Your task to perform on an android device: toggle show notifications on the lock screen Image 0: 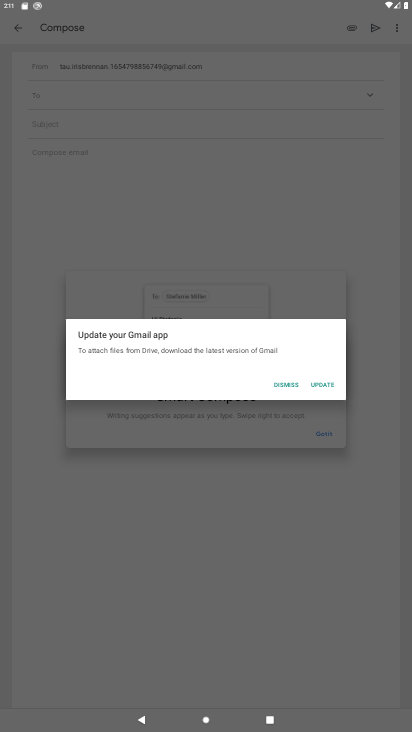
Step 0: press home button
Your task to perform on an android device: toggle show notifications on the lock screen Image 1: 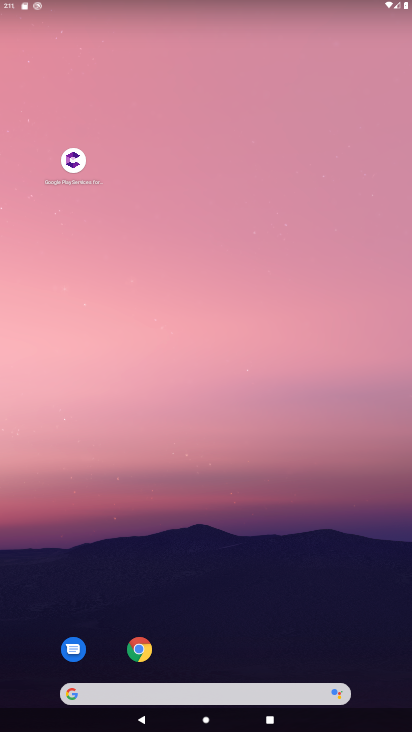
Step 1: drag from (218, 645) to (209, 474)
Your task to perform on an android device: toggle show notifications on the lock screen Image 2: 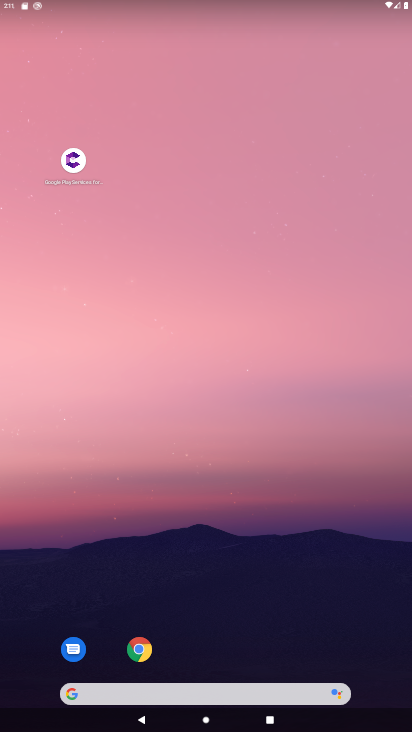
Step 2: drag from (223, 561) to (226, 207)
Your task to perform on an android device: toggle show notifications on the lock screen Image 3: 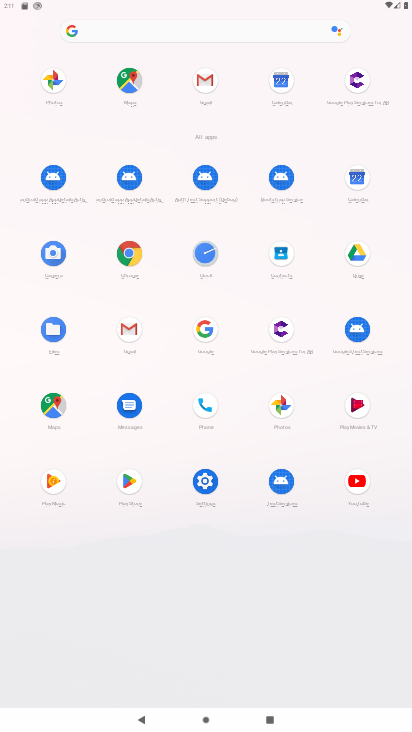
Step 3: click (209, 482)
Your task to perform on an android device: toggle show notifications on the lock screen Image 4: 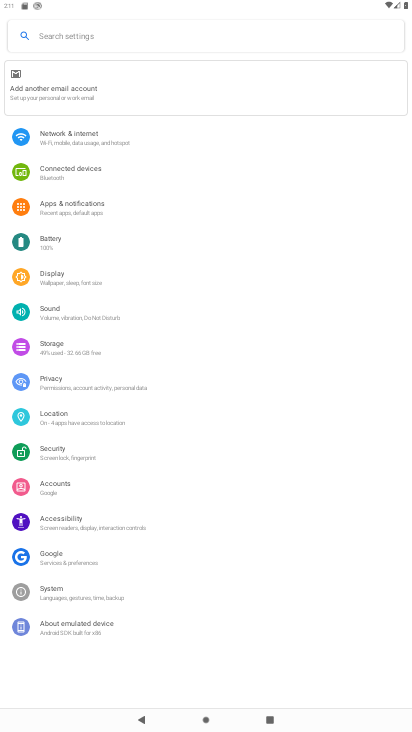
Step 4: click (69, 201)
Your task to perform on an android device: toggle show notifications on the lock screen Image 5: 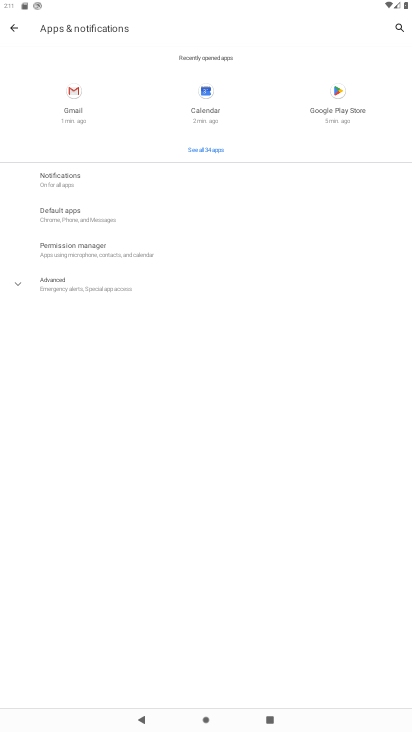
Step 5: click (55, 182)
Your task to perform on an android device: toggle show notifications on the lock screen Image 6: 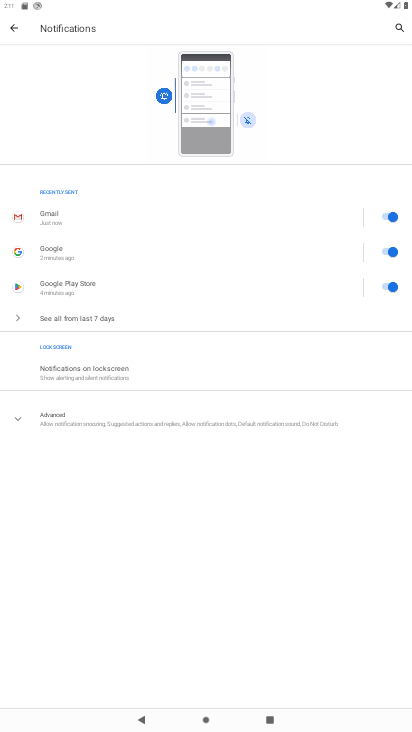
Step 6: click (81, 370)
Your task to perform on an android device: toggle show notifications on the lock screen Image 7: 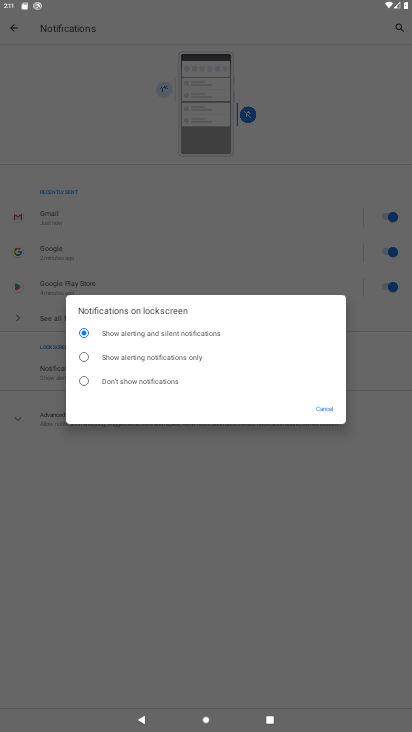
Step 7: click (83, 358)
Your task to perform on an android device: toggle show notifications on the lock screen Image 8: 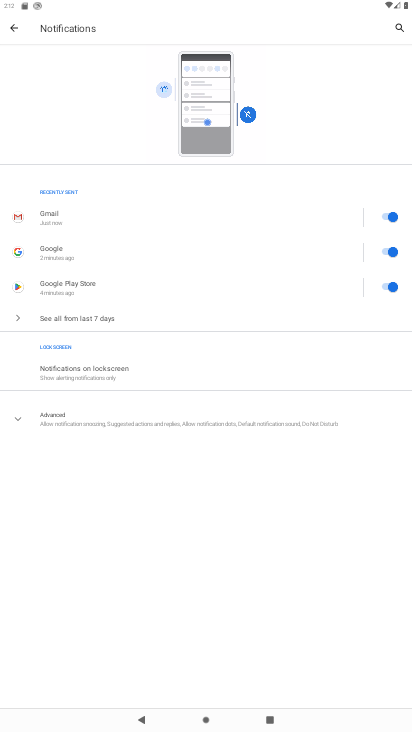
Step 8: task complete